Your task to perform on an android device: open device folders in google photos Image 0: 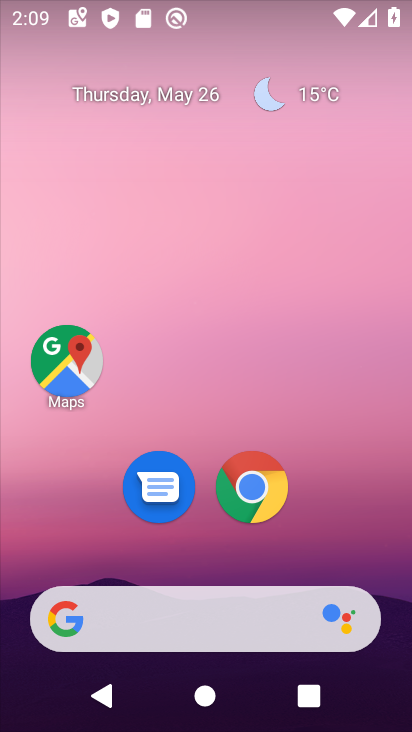
Step 0: drag from (209, 475) to (219, 137)
Your task to perform on an android device: open device folders in google photos Image 1: 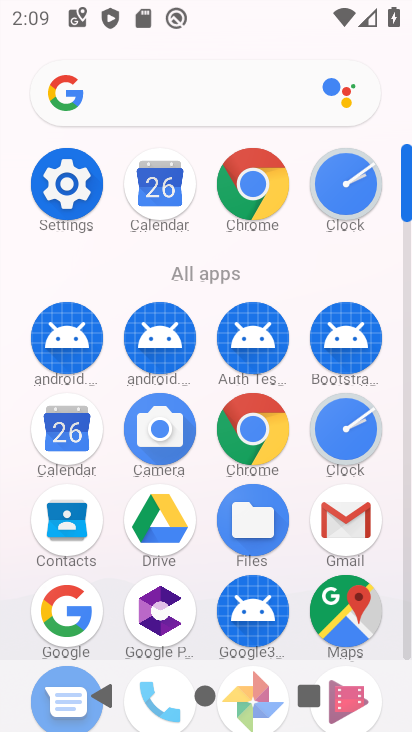
Step 1: drag from (193, 568) to (205, 237)
Your task to perform on an android device: open device folders in google photos Image 2: 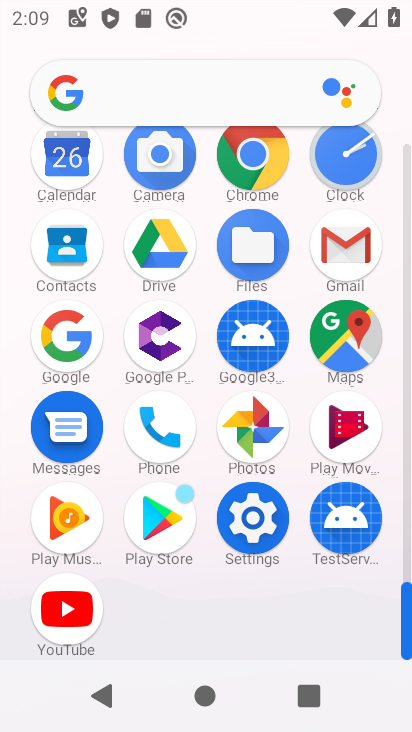
Step 2: click (234, 421)
Your task to perform on an android device: open device folders in google photos Image 3: 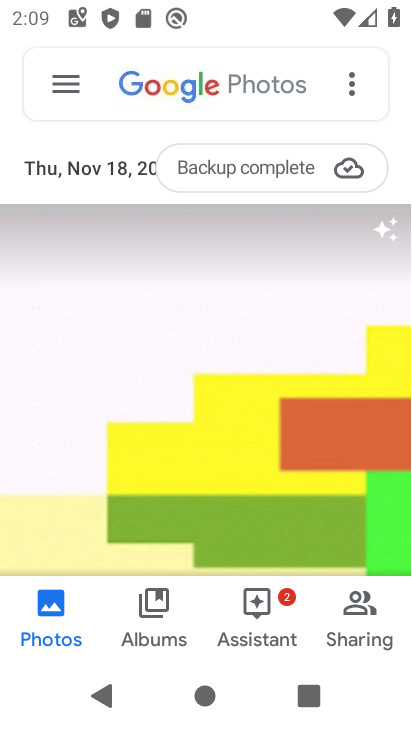
Step 3: click (53, 83)
Your task to perform on an android device: open device folders in google photos Image 4: 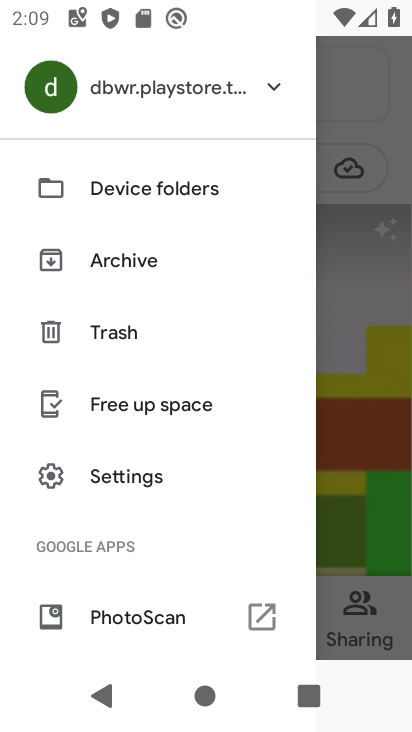
Step 4: click (133, 192)
Your task to perform on an android device: open device folders in google photos Image 5: 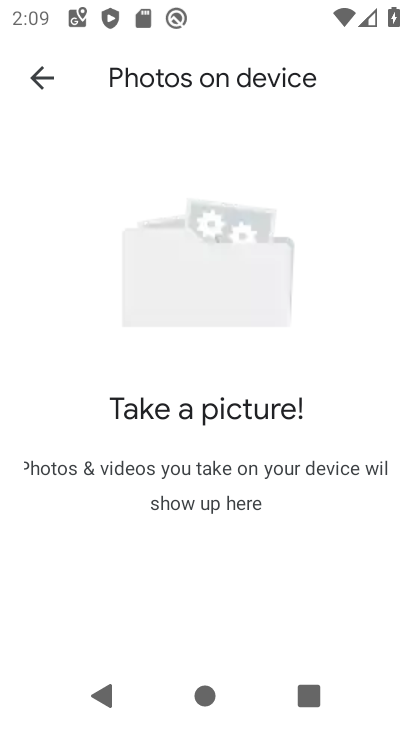
Step 5: task complete